Your task to perform on an android device: create a new album in the google photos Image 0: 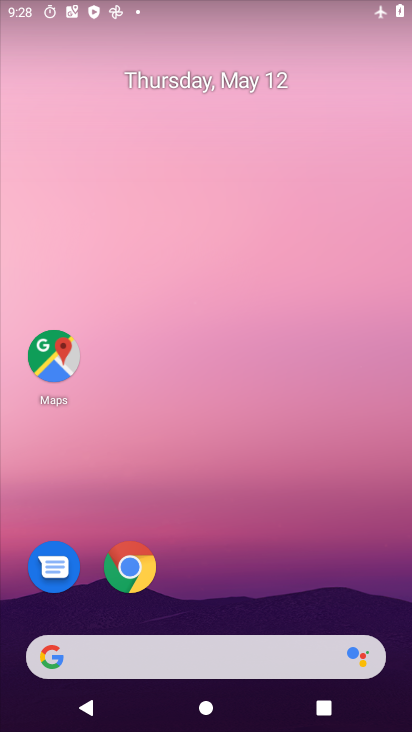
Step 0: drag from (239, 542) to (249, 215)
Your task to perform on an android device: create a new album in the google photos Image 1: 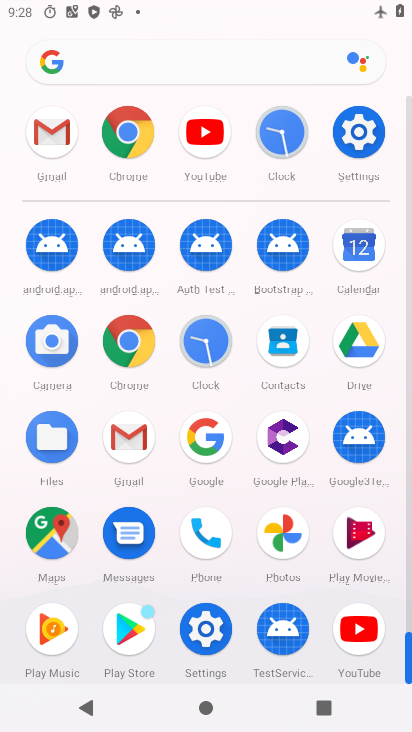
Step 1: click (291, 542)
Your task to perform on an android device: create a new album in the google photos Image 2: 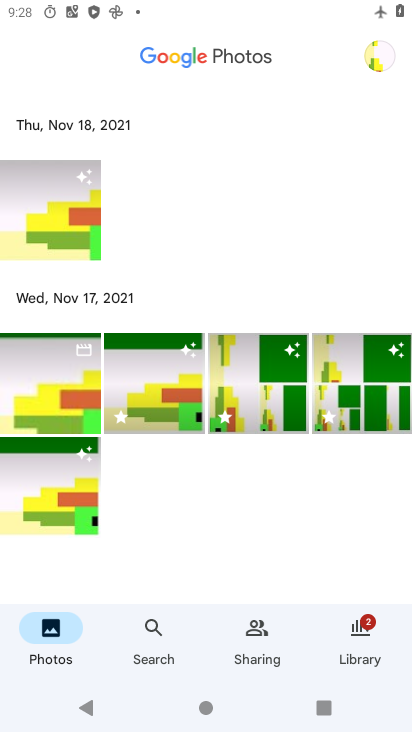
Step 2: click (166, 656)
Your task to perform on an android device: create a new album in the google photos Image 3: 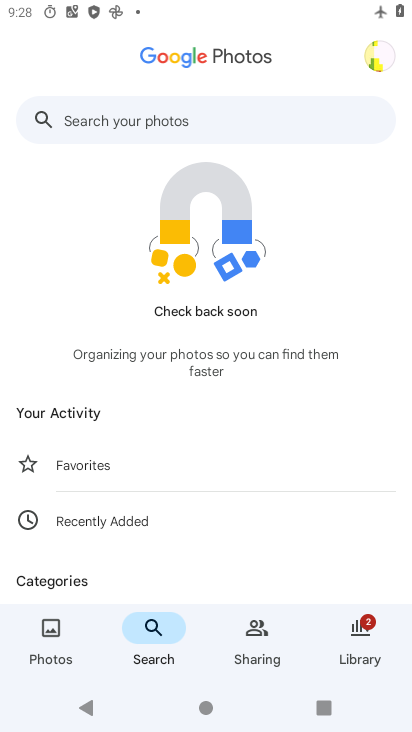
Step 3: click (257, 641)
Your task to perform on an android device: create a new album in the google photos Image 4: 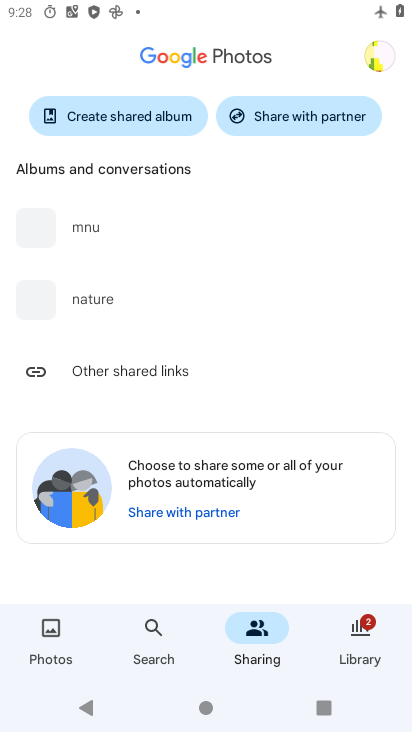
Step 4: click (361, 641)
Your task to perform on an android device: create a new album in the google photos Image 5: 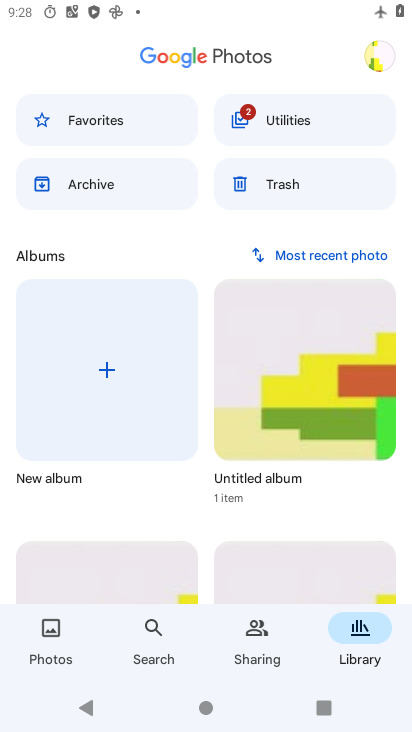
Step 5: click (254, 653)
Your task to perform on an android device: create a new album in the google photos Image 6: 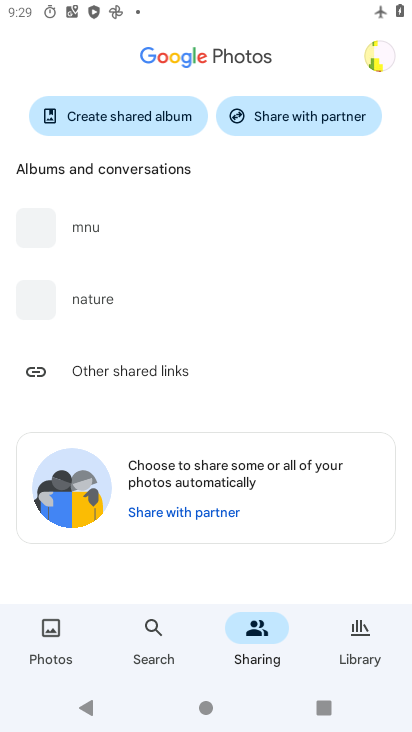
Step 6: click (352, 642)
Your task to perform on an android device: create a new album in the google photos Image 7: 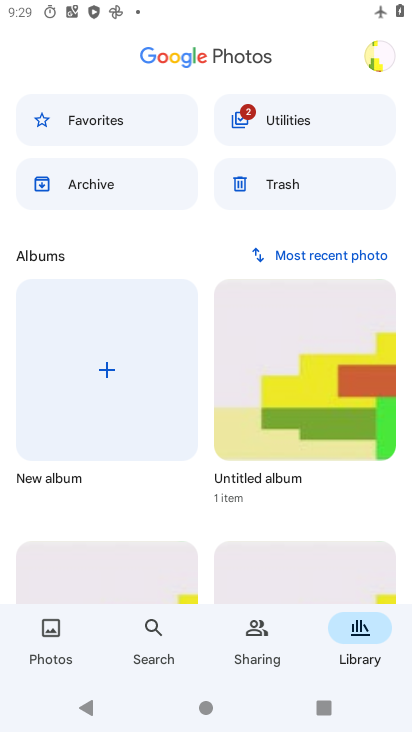
Step 7: click (142, 382)
Your task to perform on an android device: create a new album in the google photos Image 8: 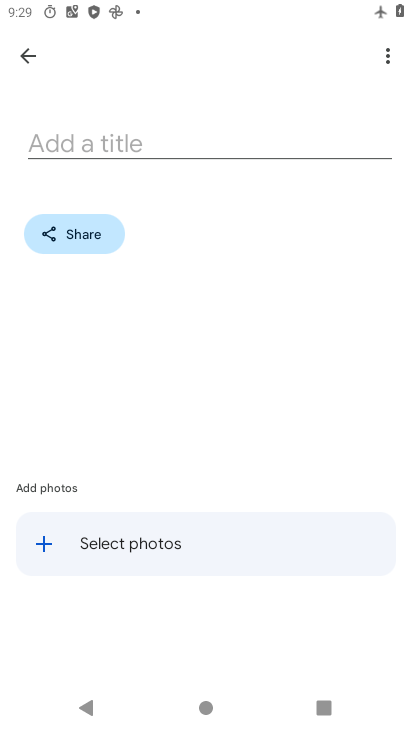
Step 8: click (187, 144)
Your task to perform on an android device: create a new album in the google photos Image 9: 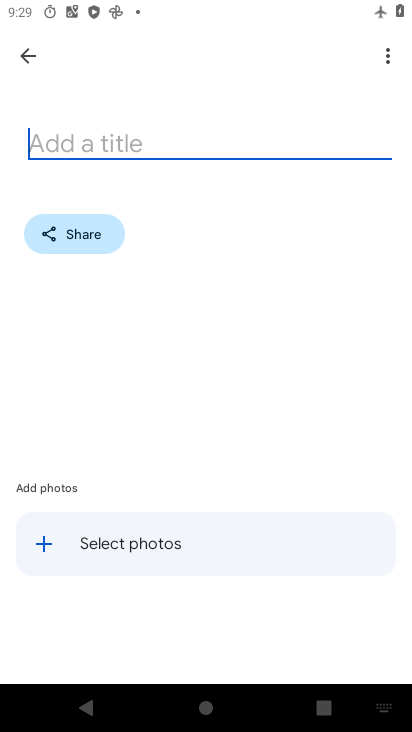
Step 9: type "hungama"
Your task to perform on an android device: create a new album in the google photos Image 10: 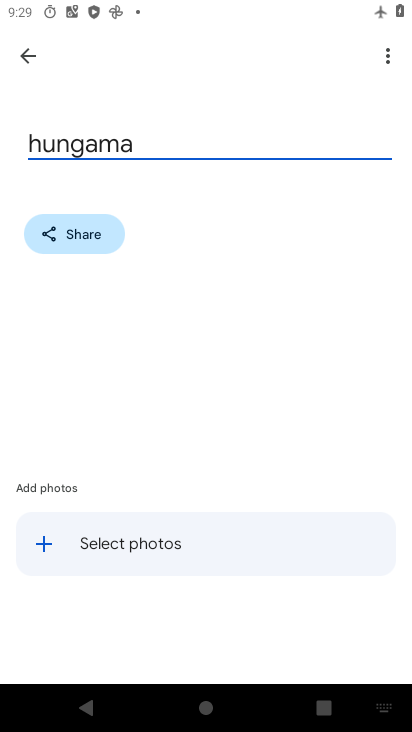
Step 10: click (55, 543)
Your task to perform on an android device: create a new album in the google photos Image 11: 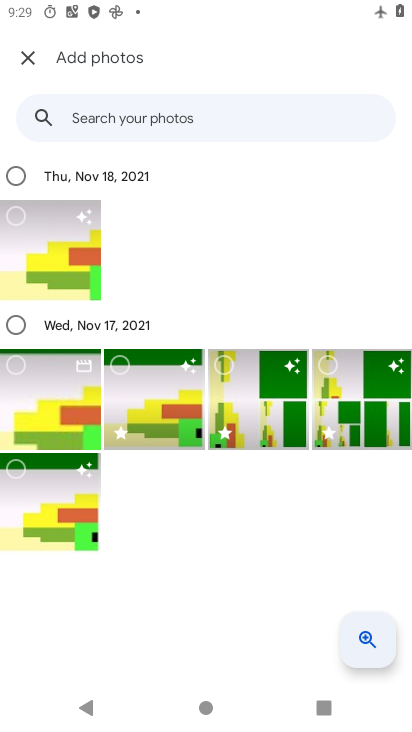
Step 11: click (122, 367)
Your task to perform on an android device: create a new album in the google photos Image 12: 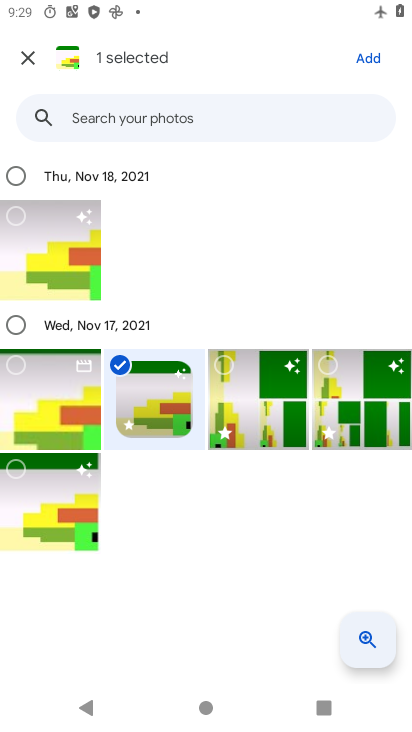
Step 12: click (228, 377)
Your task to perform on an android device: create a new album in the google photos Image 13: 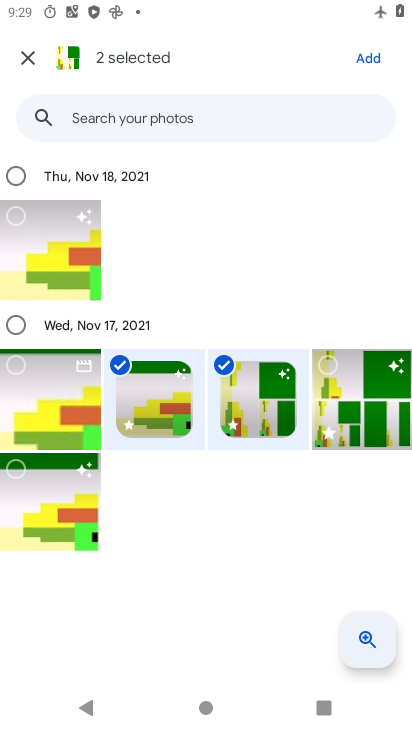
Step 13: click (375, 63)
Your task to perform on an android device: create a new album in the google photos Image 14: 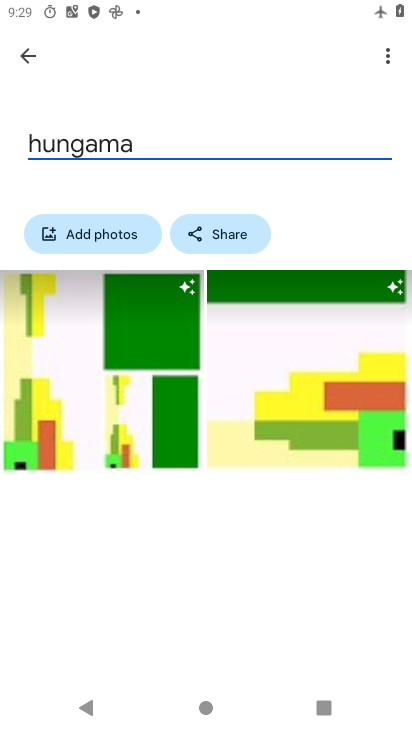
Step 14: task complete